Your task to perform on an android device: open a new tab in the chrome app Image 0: 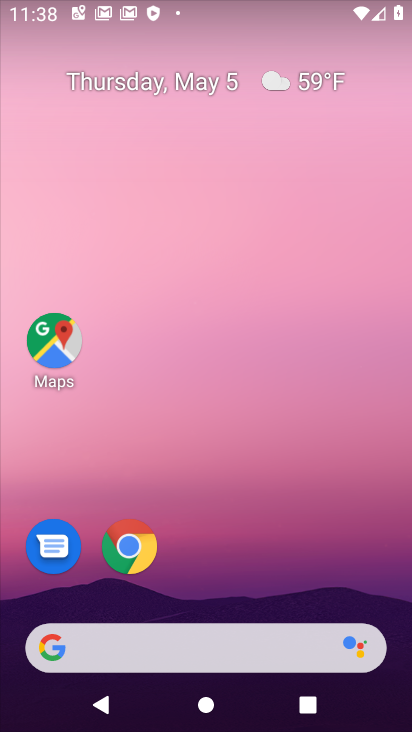
Step 0: click (140, 543)
Your task to perform on an android device: open a new tab in the chrome app Image 1: 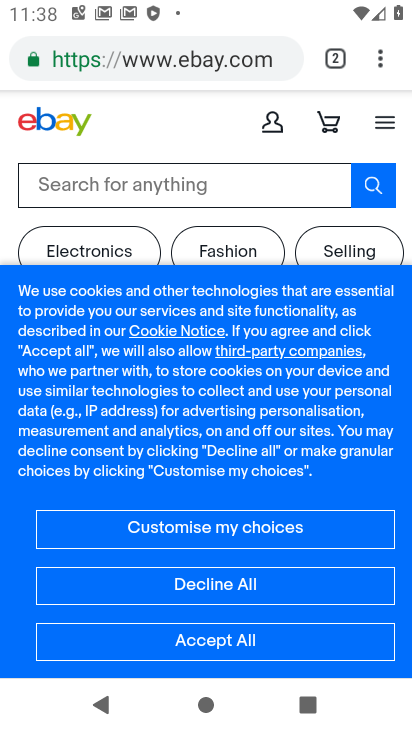
Step 1: click (338, 54)
Your task to perform on an android device: open a new tab in the chrome app Image 2: 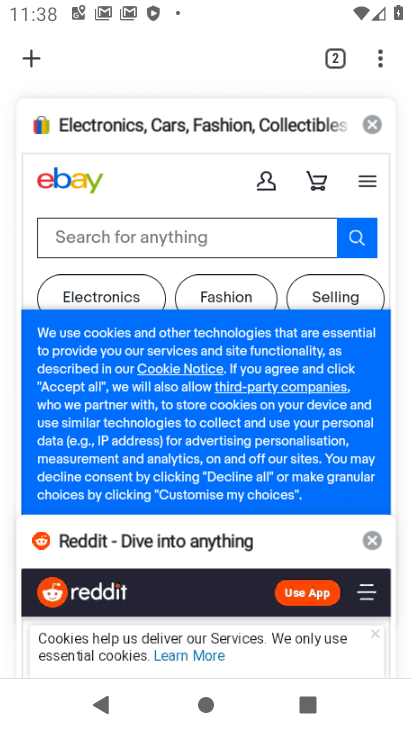
Step 2: click (25, 60)
Your task to perform on an android device: open a new tab in the chrome app Image 3: 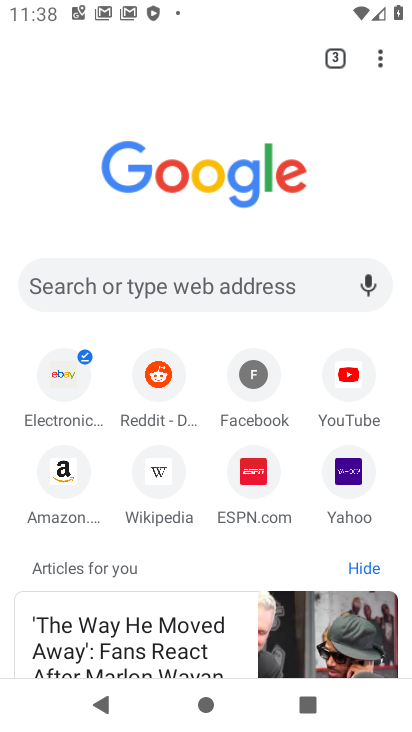
Step 3: task complete